Your task to perform on an android device: Open the map Image 0: 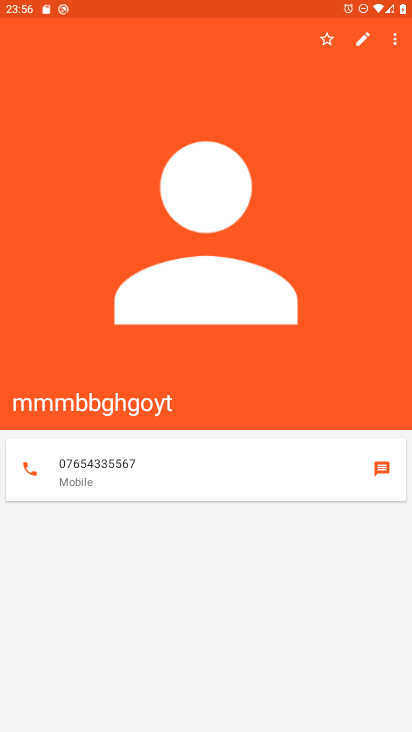
Step 0: press home button
Your task to perform on an android device: Open the map Image 1: 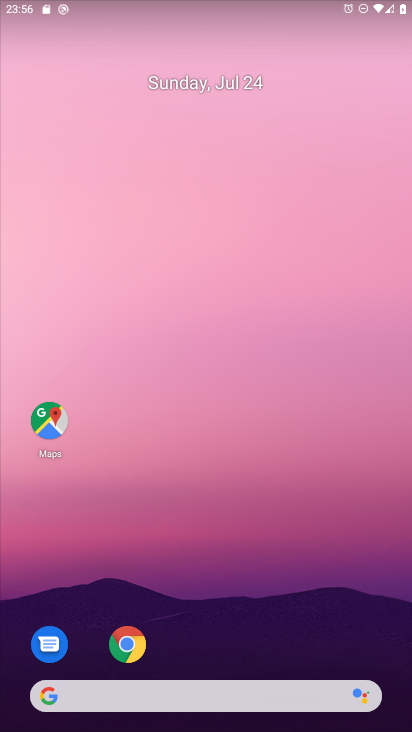
Step 1: click (55, 423)
Your task to perform on an android device: Open the map Image 2: 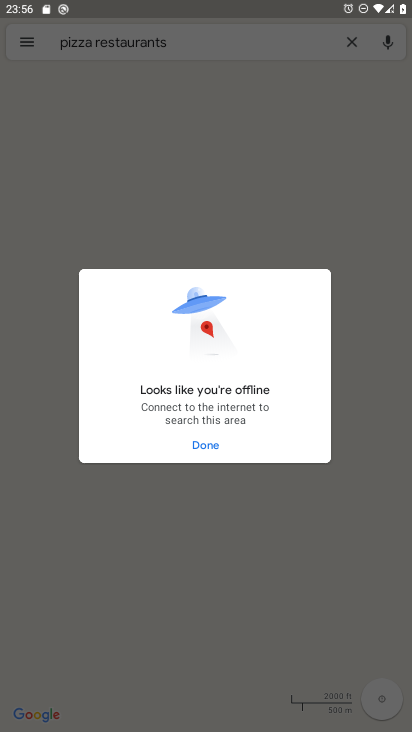
Step 2: click (208, 434)
Your task to perform on an android device: Open the map Image 3: 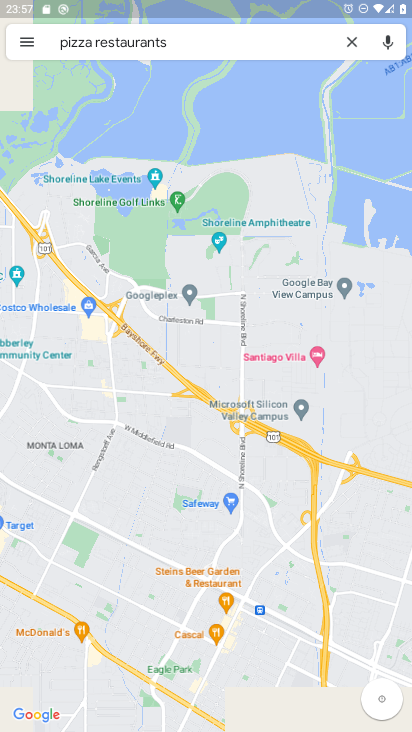
Step 3: task complete